Your task to perform on an android device: Open calendar and show me the first week of next month Image 0: 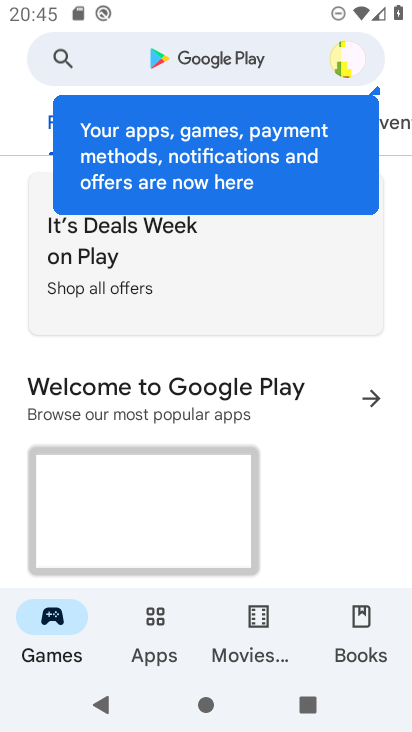
Step 0: press home button
Your task to perform on an android device: Open calendar and show me the first week of next month Image 1: 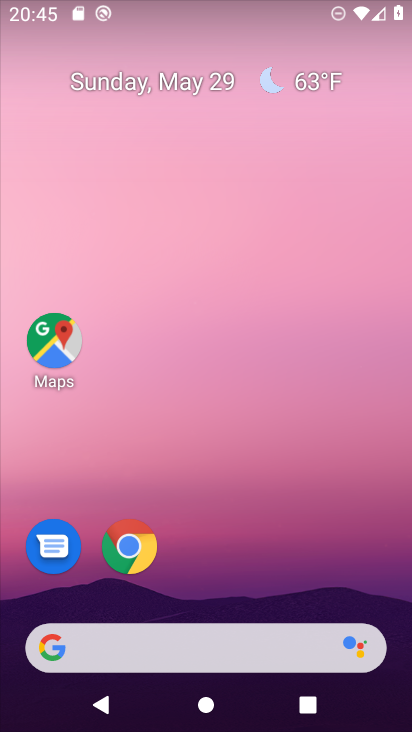
Step 1: drag from (116, 644) to (230, 136)
Your task to perform on an android device: Open calendar and show me the first week of next month Image 2: 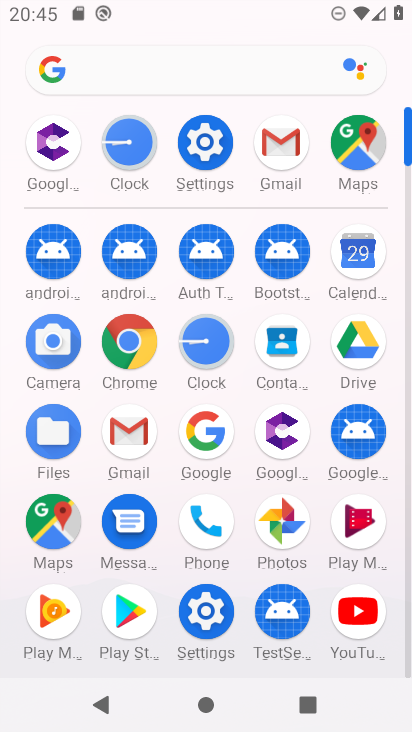
Step 2: click (360, 262)
Your task to perform on an android device: Open calendar and show me the first week of next month Image 3: 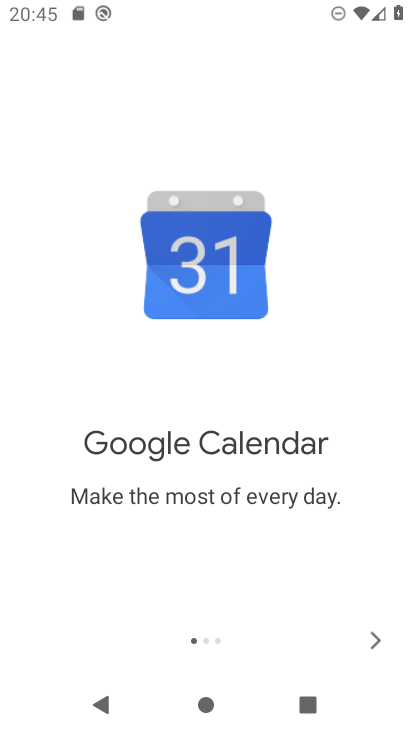
Step 3: click (372, 627)
Your task to perform on an android device: Open calendar and show me the first week of next month Image 4: 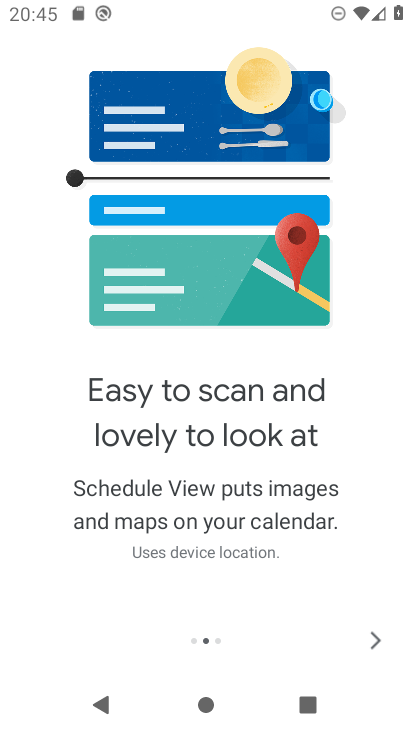
Step 4: click (372, 625)
Your task to perform on an android device: Open calendar and show me the first week of next month Image 5: 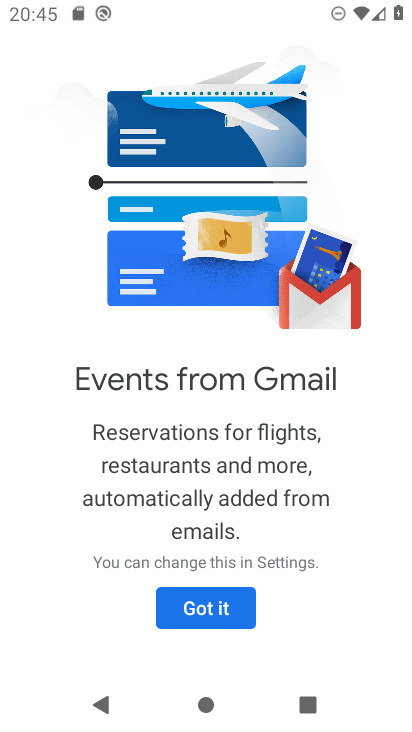
Step 5: click (189, 616)
Your task to perform on an android device: Open calendar and show me the first week of next month Image 6: 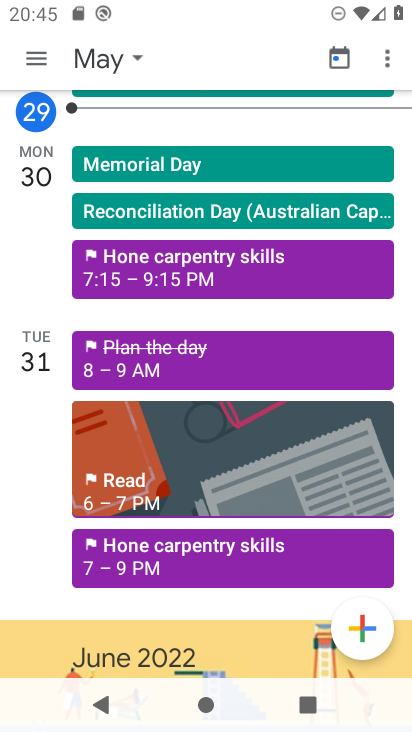
Step 6: click (118, 63)
Your task to perform on an android device: Open calendar and show me the first week of next month Image 7: 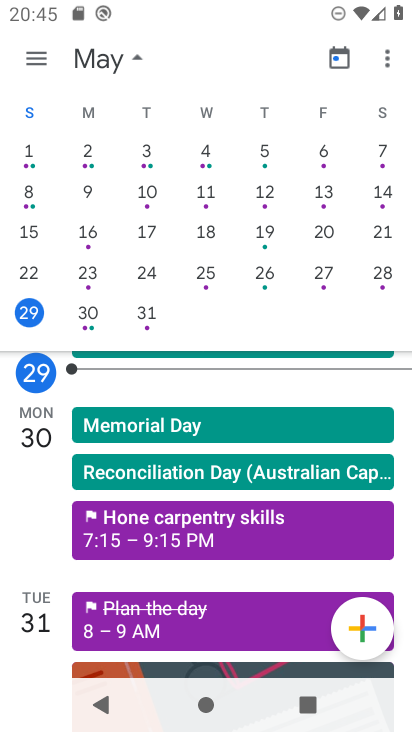
Step 7: drag from (376, 225) to (30, 236)
Your task to perform on an android device: Open calendar and show me the first week of next month Image 8: 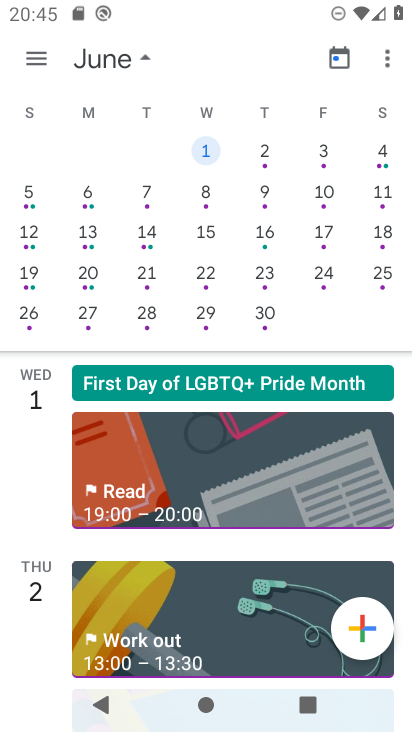
Step 8: click (201, 152)
Your task to perform on an android device: Open calendar and show me the first week of next month Image 9: 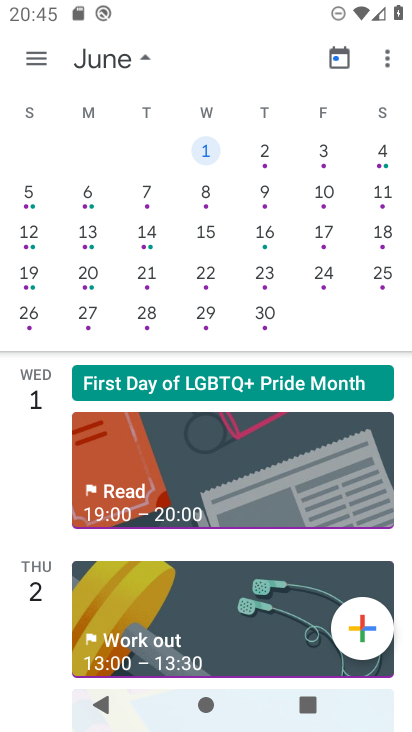
Step 9: click (38, 60)
Your task to perform on an android device: Open calendar and show me the first week of next month Image 10: 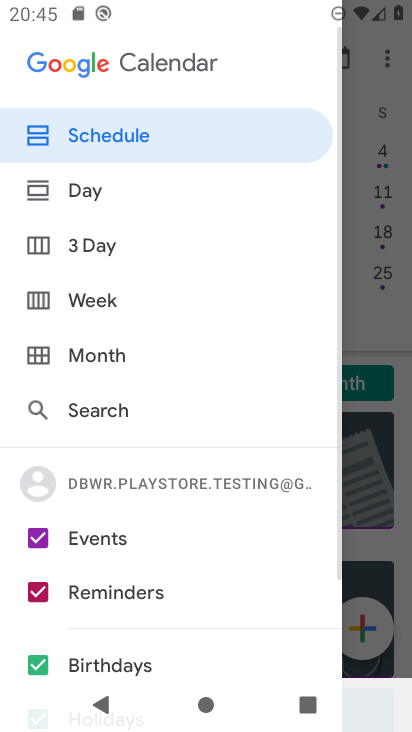
Step 10: click (88, 300)
Your task to perform on an android device: Open calendar and show me the first week of next month Image 11: 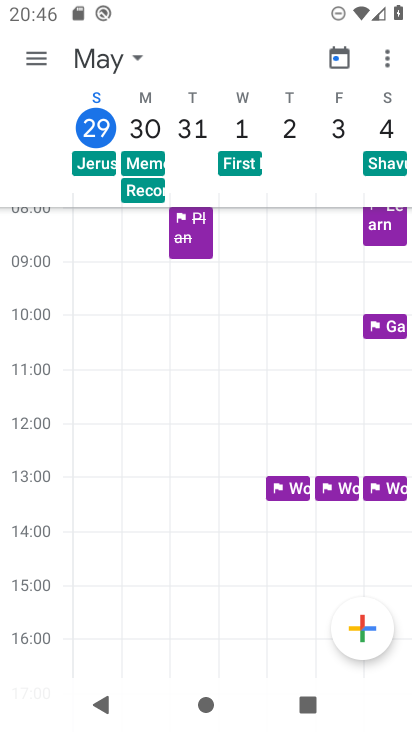
Step 11: task complete